Your task to perform on an android device: allow notifications from all sites in the chrome app Image 0: 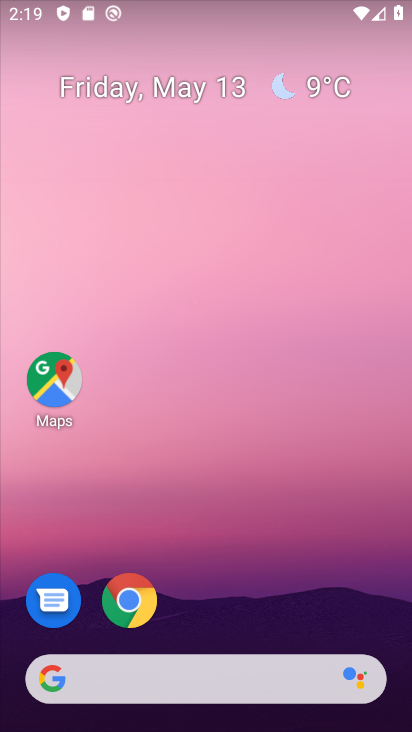
Step 0: click (125, 589)
Your task to perform on an android device: allow notifications from all sites in the chrome app Image 1: 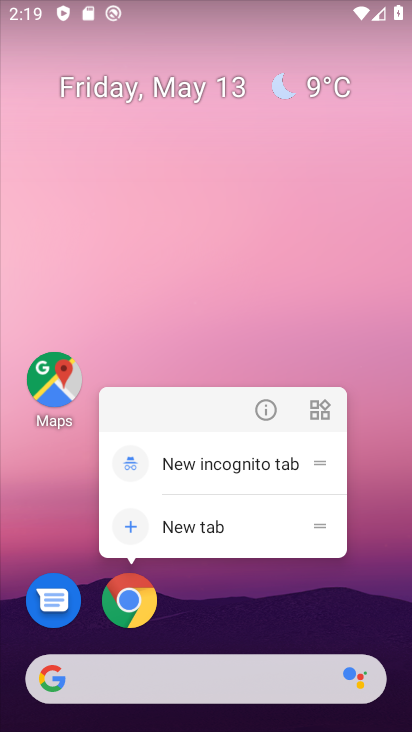
Step 1: click (127, 593)
Your task to perform on an android device: allow notifications from all sites in the chrome app Image 2: 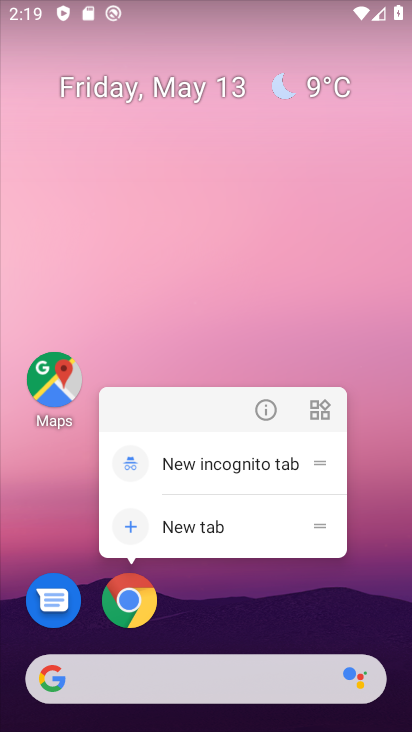
Step 2: click (127, 593)
Your task to perform on an android device: allow notifications from all sites in the chrome app Image 3: 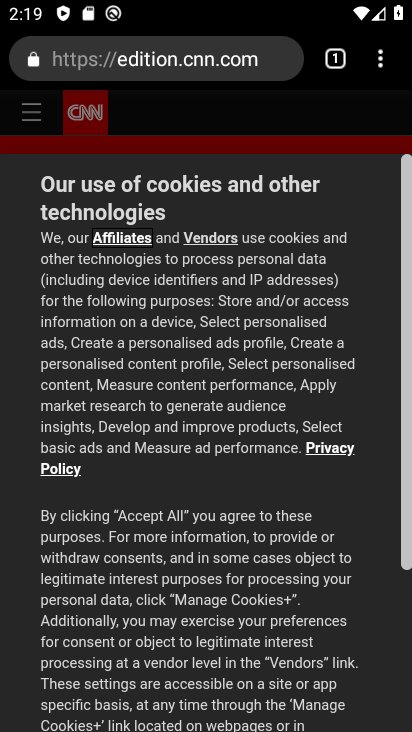
Step 3: click (384, 61)
Your task to perform on an android device: allow notifications from all sites in the chrome app Image 4: 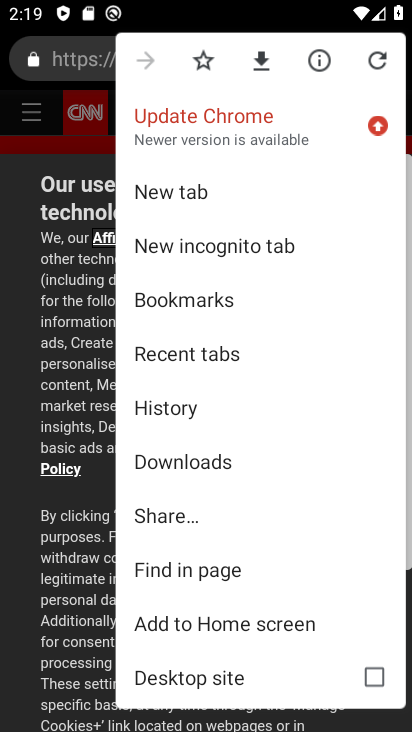
Step 4: drag from (213, 656) to (225, 340)
Your task to perform on an android device: allow notifications from all sites in the chrome app Image 5: 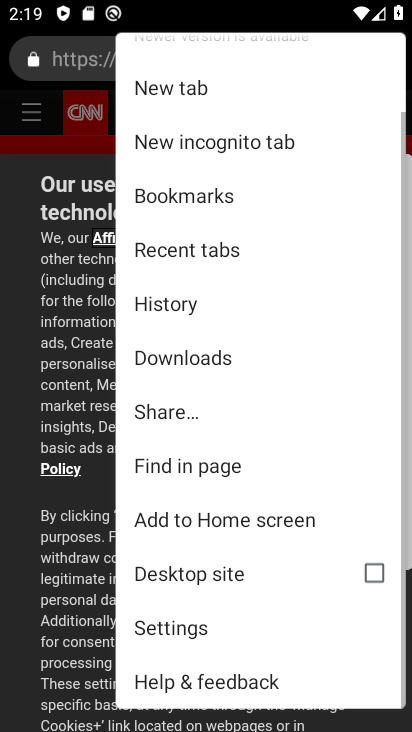
Step 5: click (220, 635)
Your task to perform on an android device: allow notifications from all sites in the chrome app Image 6: 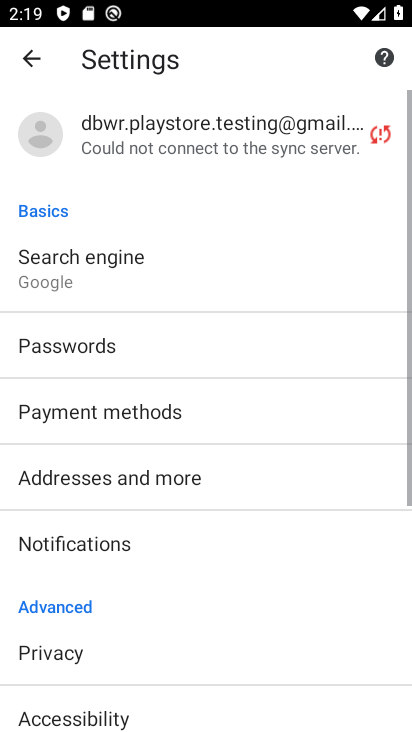
Step 6: drag from (217, 612) to (208, 321)
Your task to perform on an android device: allow notifications from all sites in the chrome app Image 7: 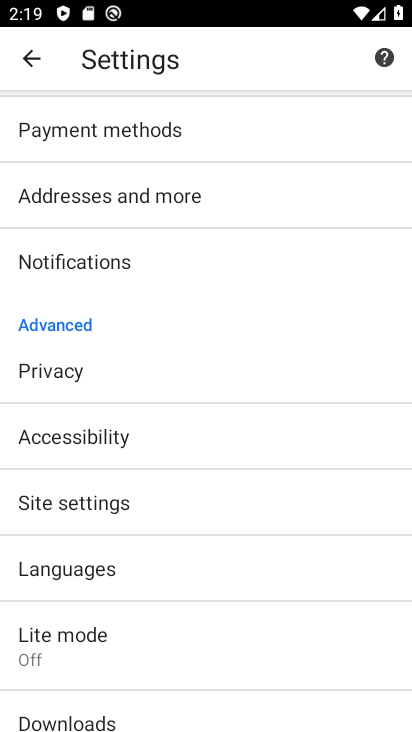
Step 7: click (179, 517)
Your task to perform on an android device: allow notifications from all sites in the chrome app Image 8: 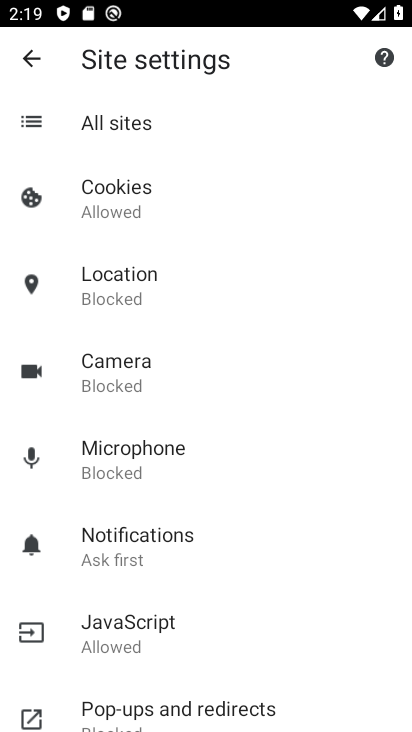
Step 8: drag from (227, 666) to (223, 334)
Your task to perform on an android device: allow notifications from all sites in the chrome app Image 9: 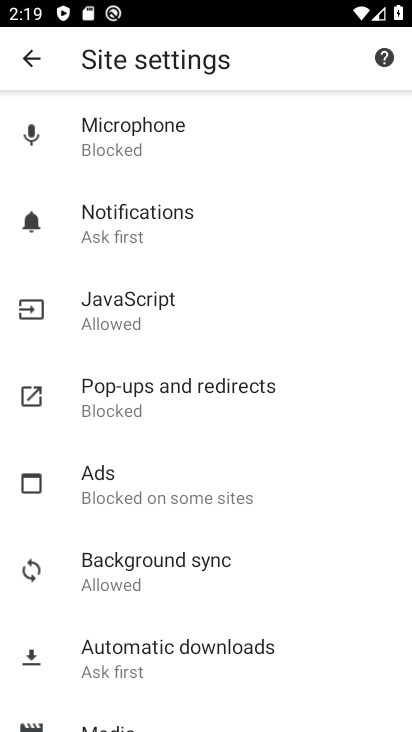
Step 9: click (33, 60)
Your task to perform on an android device: allow notifications from all sites in the chrome app Image 10: 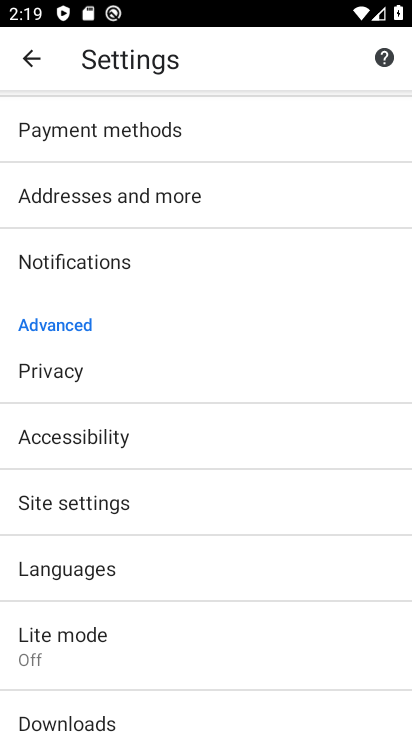
Step 10: drag from (119, 672) to (201, 600)
Your task to perform on an android device: allow notifications from all sites in the chrome app Image 11: 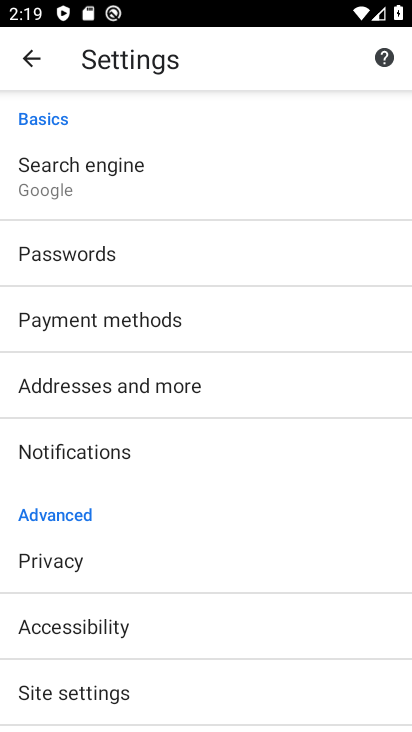
Step 11: click (131, 461)
Your task to perform on an android device: allow notifications from all sites in the chrome app Image 12: 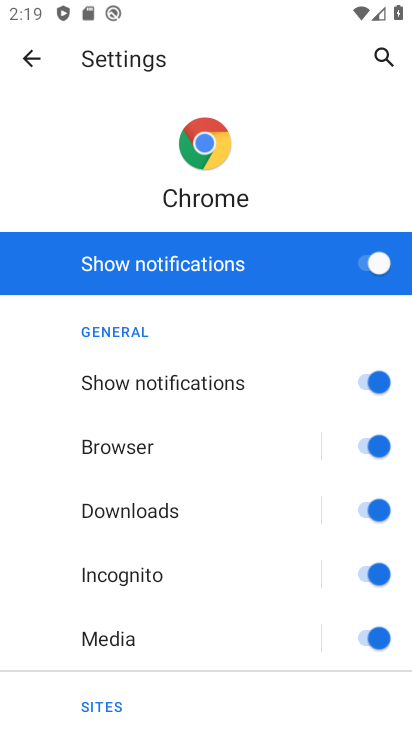
Step 12: task complete